Your task to perform on an android device: open app "Cash App" (install if not already installed) and enter user name: "submodules@gmail.com" and password: "heavenly" Image 0: 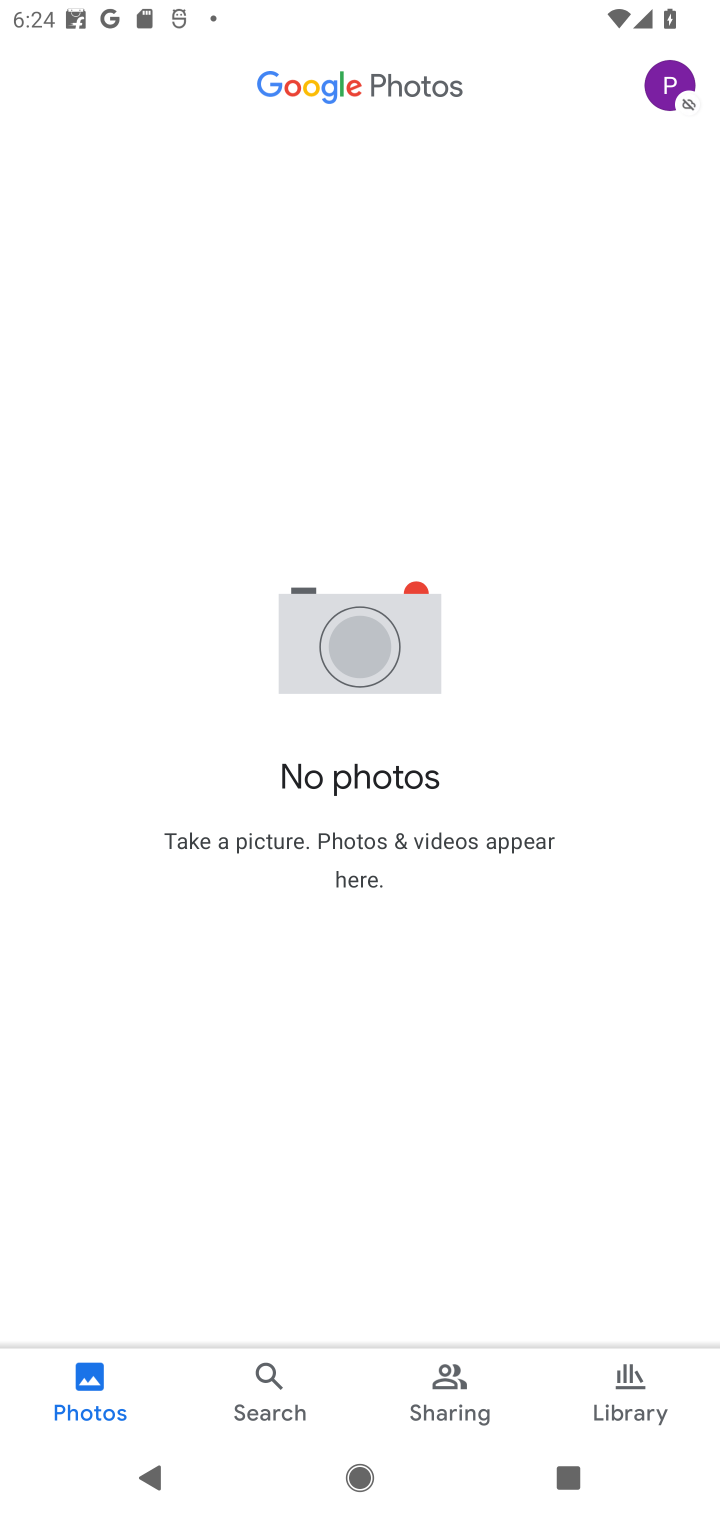
Step 0: press home button
Your task to perform on an android device: open app "Cash App" (install if not already installed) and enter user name: "submodules@gmail.com" and password: "heavenly" Image 1: 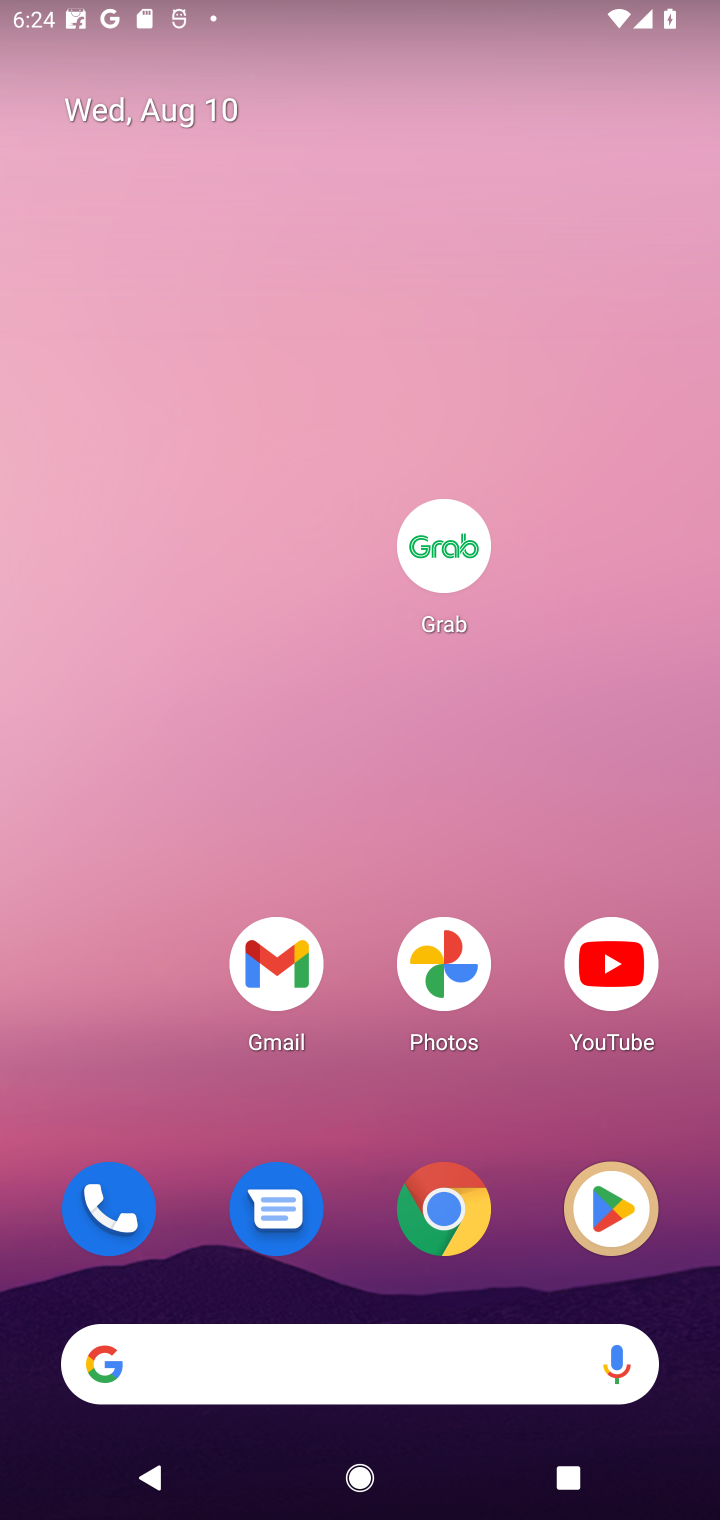
Step 1: click (569, 1246)
Your task to perform on an android device: open app "Cash App" (install if not already installed) and enter user name: "submodules@gmail.com" and password: "heavenly" Image 2: 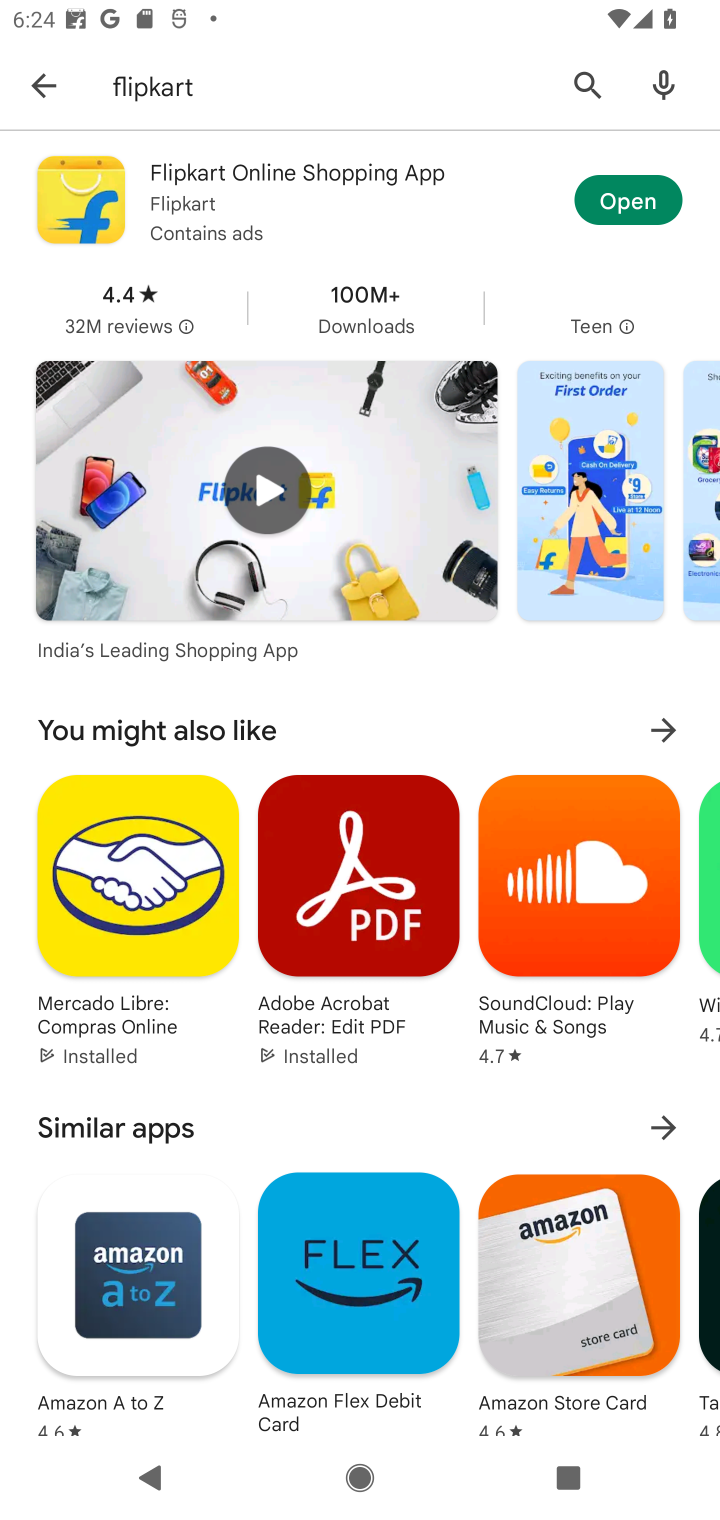
Step 2: click (575, 118)
Your task to perform on an android device: open app "Cash App" (install if not already installed) and enter user name: "submodules@gmail.com" and password: "heavenly" Image 3: 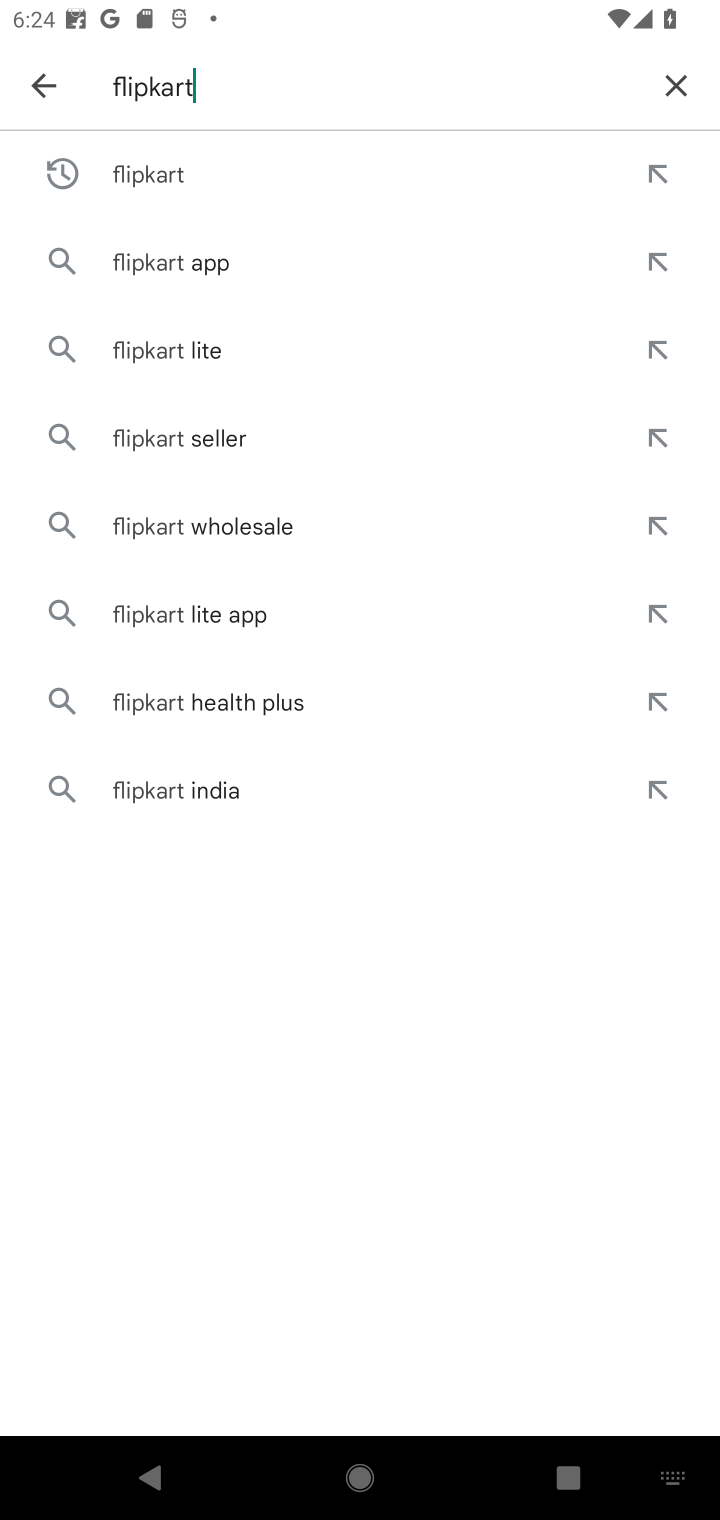
Step 3: click (652, 87)
Your task to perform on an android device: open app "Cash App" (install if not already installed) and enter user name: "submodules@gmail.com" and password: "heavenly" Image 4: 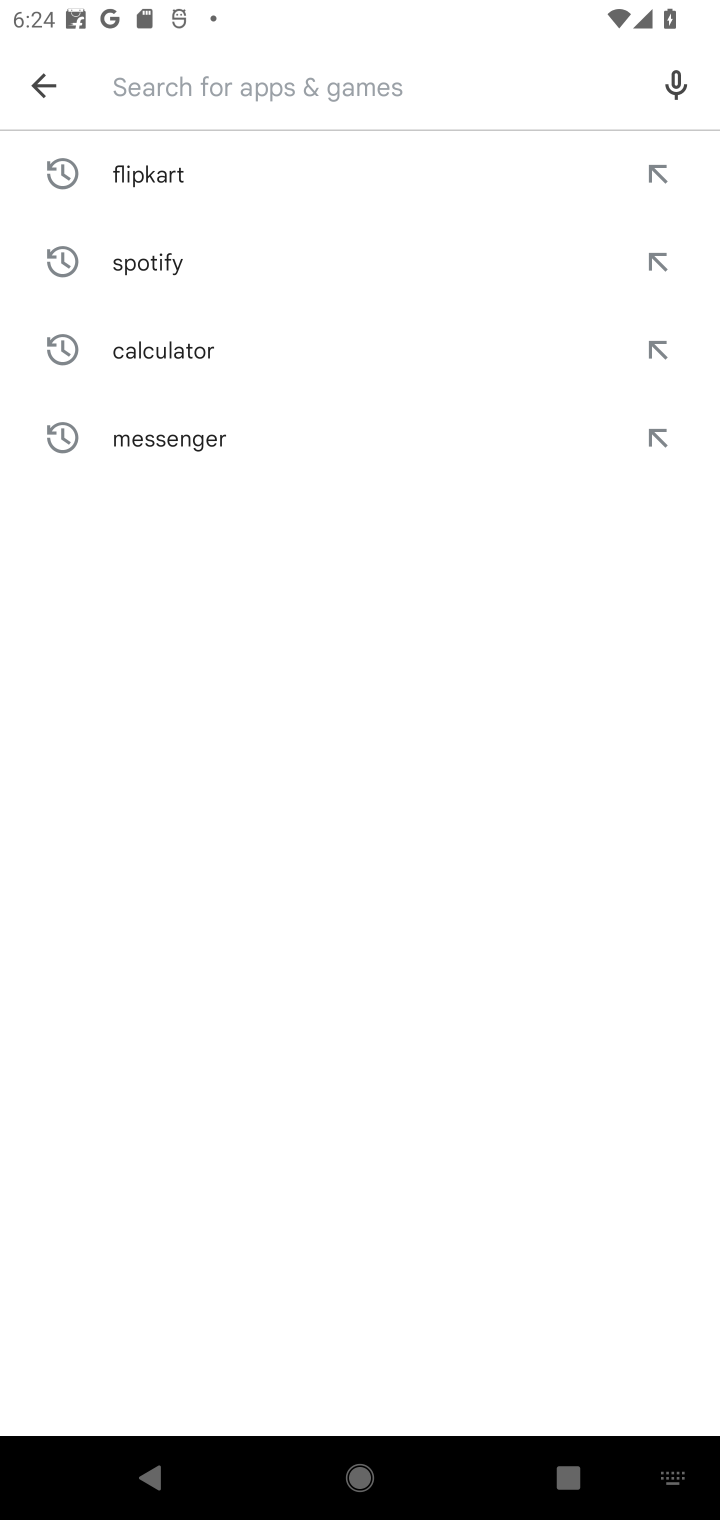
Step 4: type "cash app"
Your task to perform on an android device: open app "Cash App" (install if not already installed) and enter user name: "submodules@gmail.com" and password: "heavenly" Image 5: 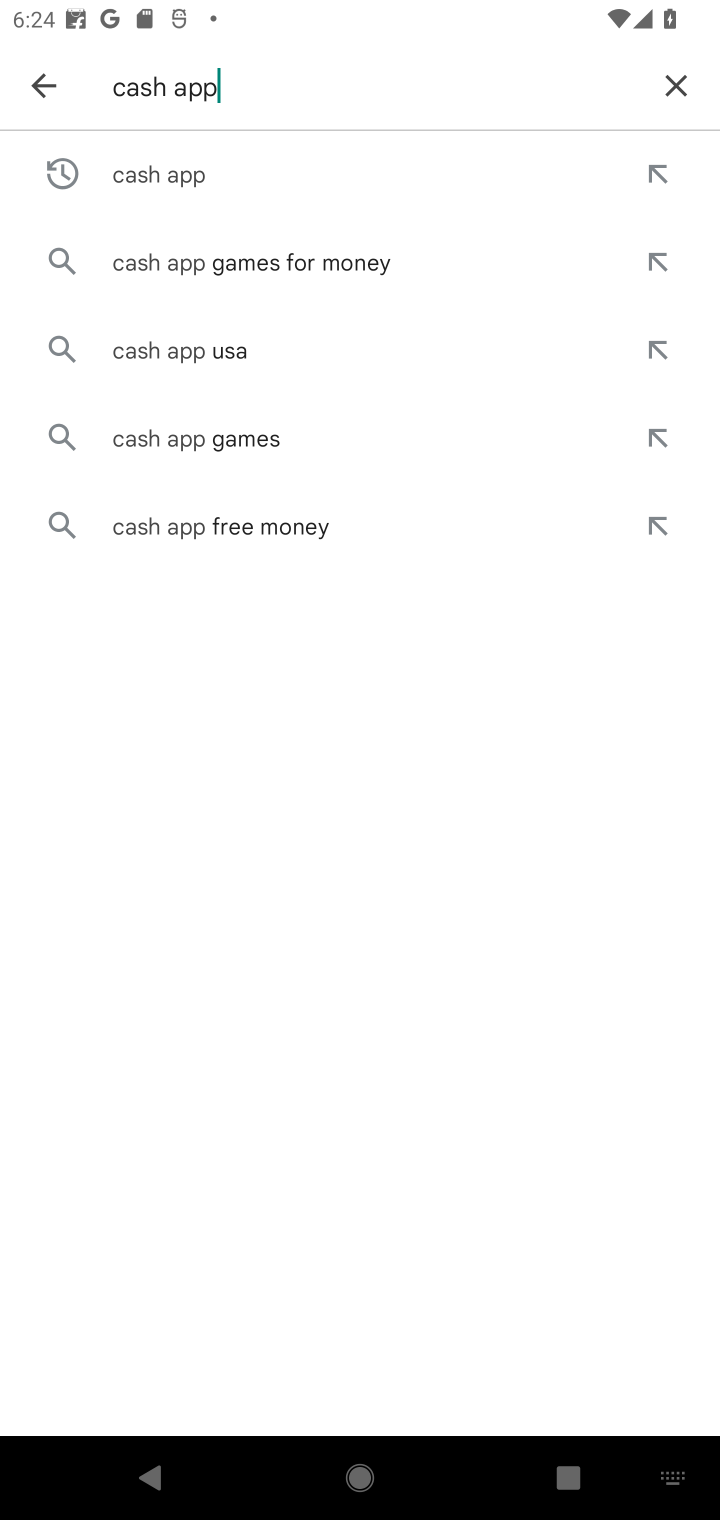
Step 5: click (207, 188)
Your task to perform on an android device: open app "Cash App" (install if not already installed) and enter user name: "submodules@gmail.com" and password: "heavenly" Image 6: 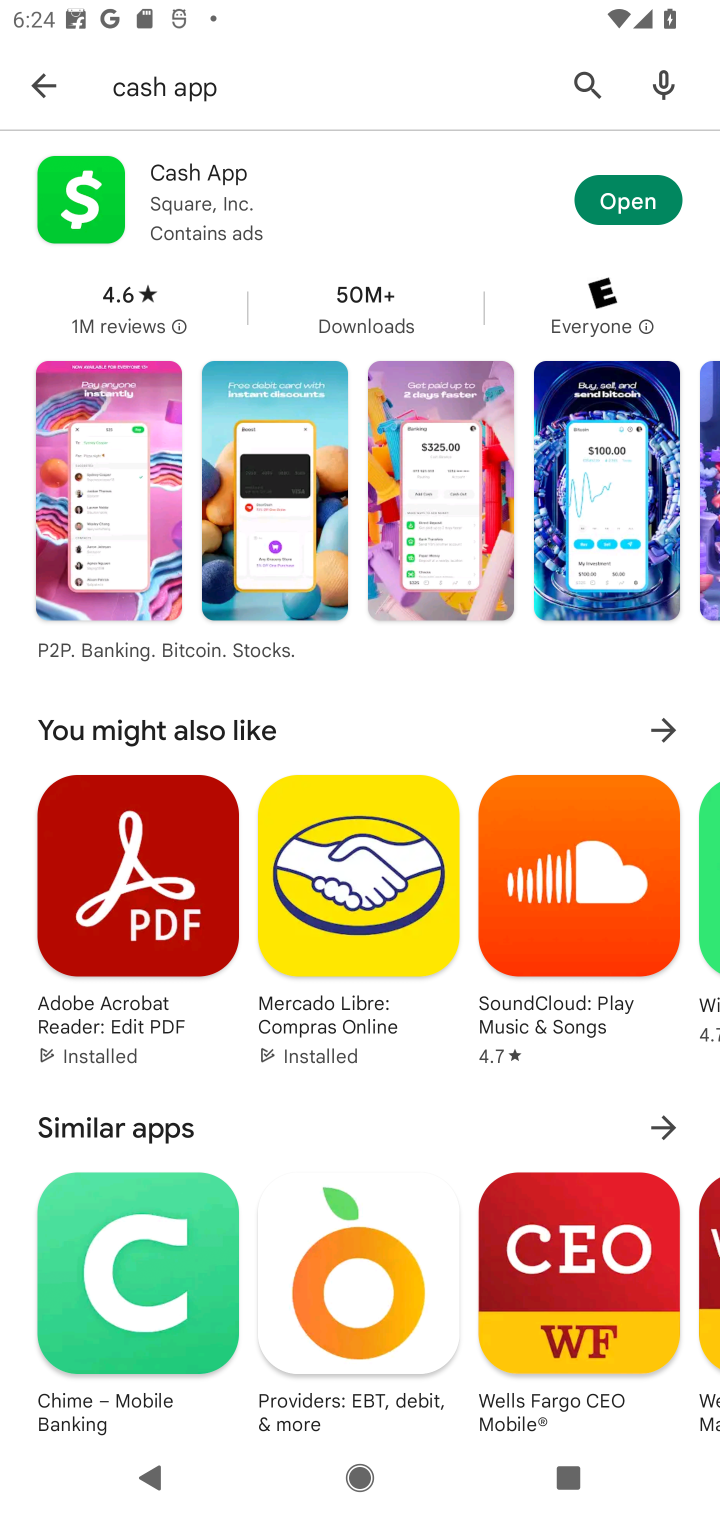
Step 6: click (626, 178)
Your task to perform on an android device: open app "Cash App" (install if not already installed) and enter user name: "submodules@gmail.com" and password: "heavenly" Image 7: 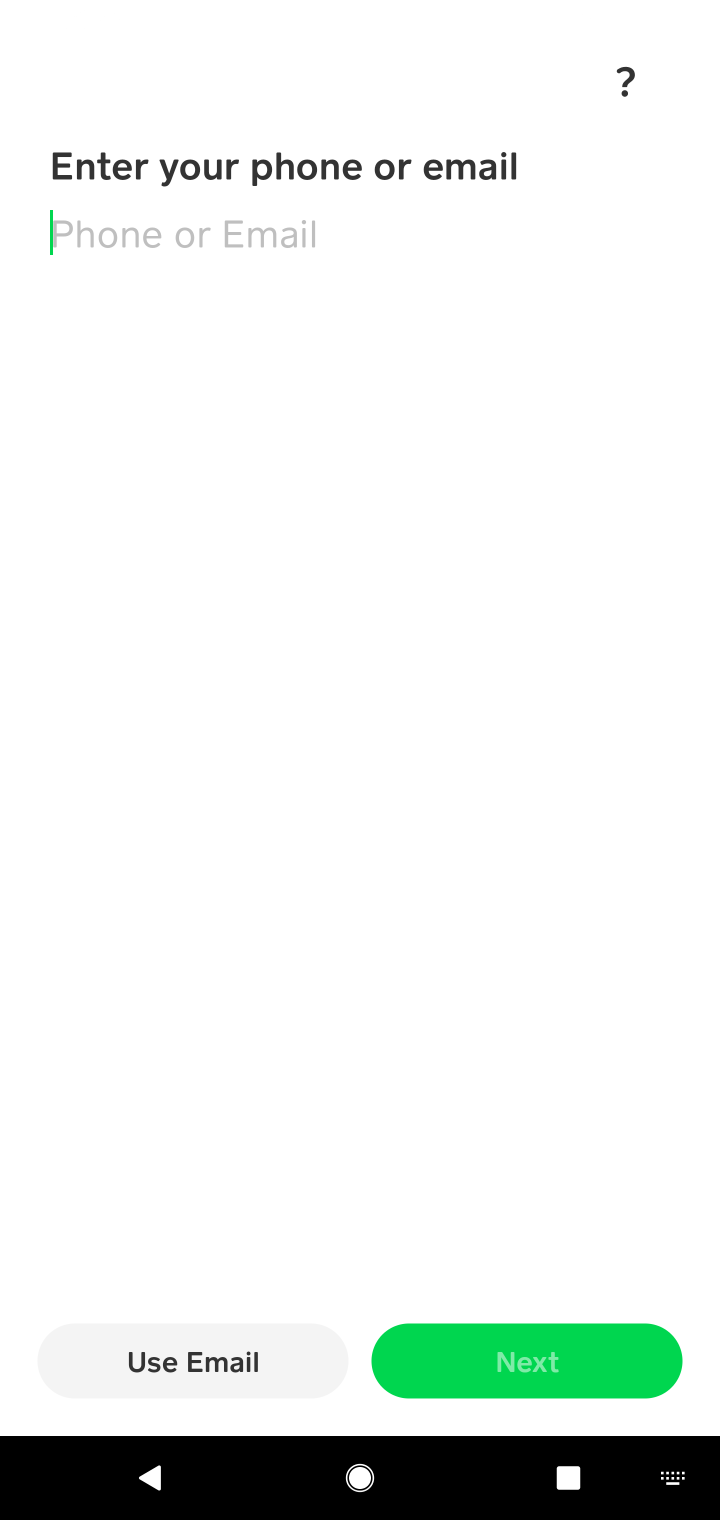
Step 7: click (195, 1389)
Your task to perform on an android device: open app "Cash App" (install if not already installed) and enter user name: "submodules@gmail.com" and password: "heavenly" Image 8: 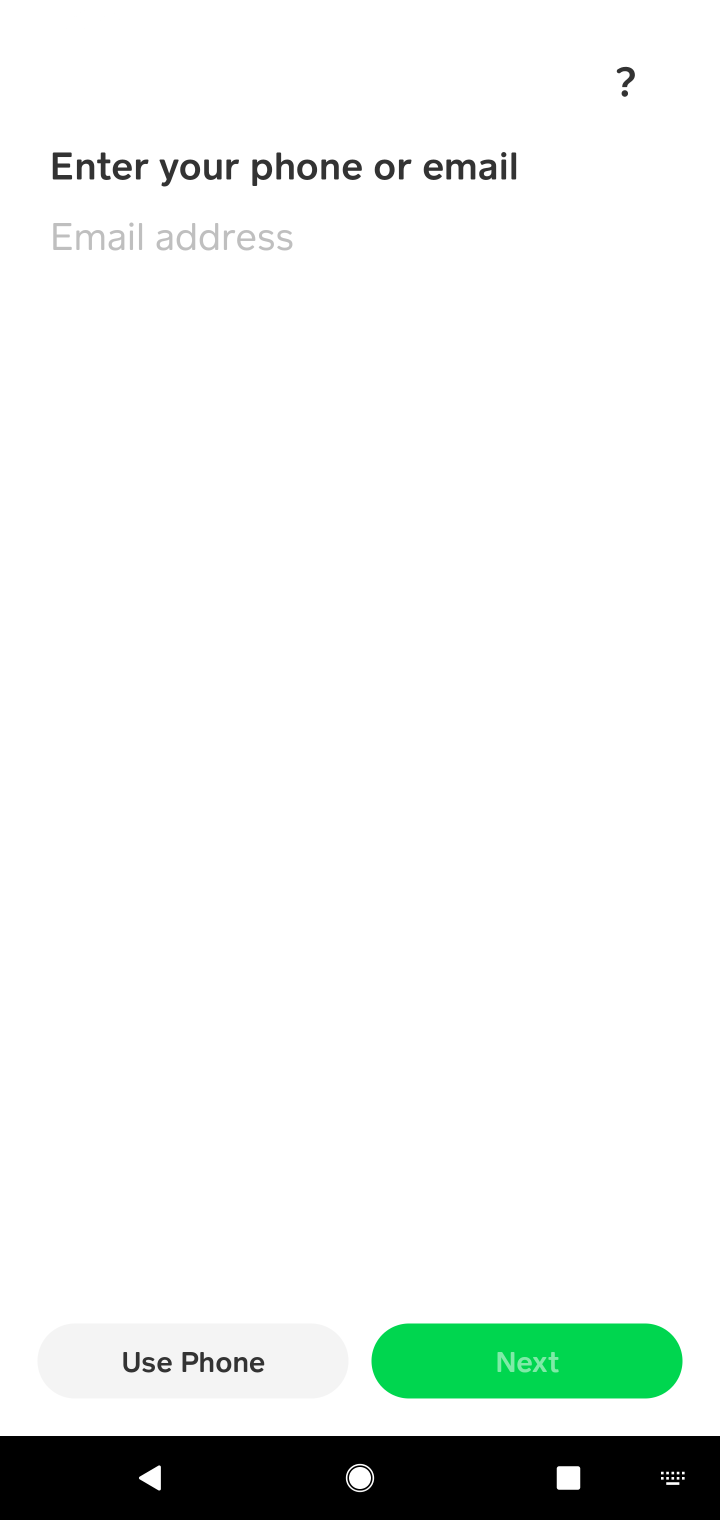
Step 8: click (237, 233)
Your task to perform on an android device: open app "Cash App" (install if not already installed) and enter user name: "submodules@gmail.com" and password: "heavenly" Image 9: 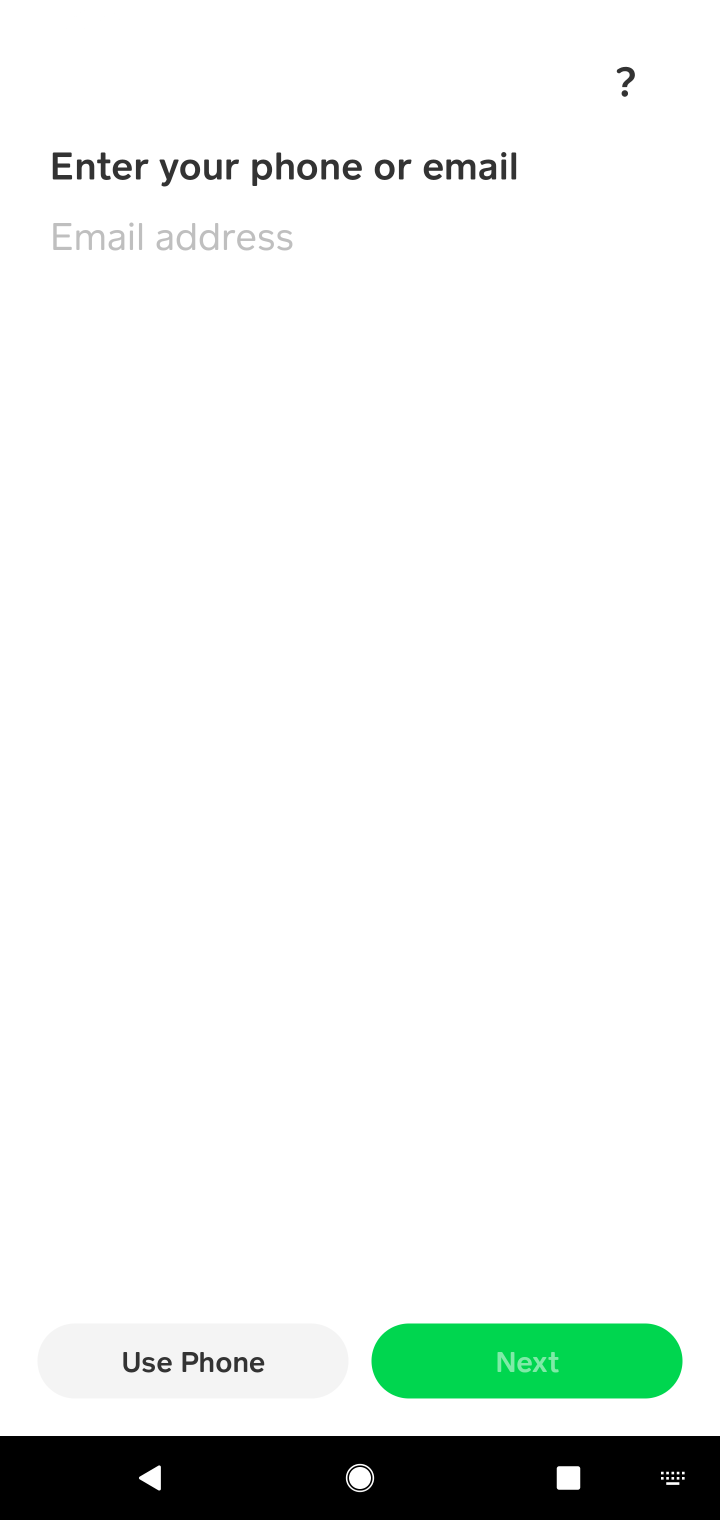
Step 9: type "submodules@gmail.com"
Your task to perform on an android device: open app "Cash App" (install if not already installed) and enter user name: "submodules@gmail.com" and password: "heavenly" Image 10: 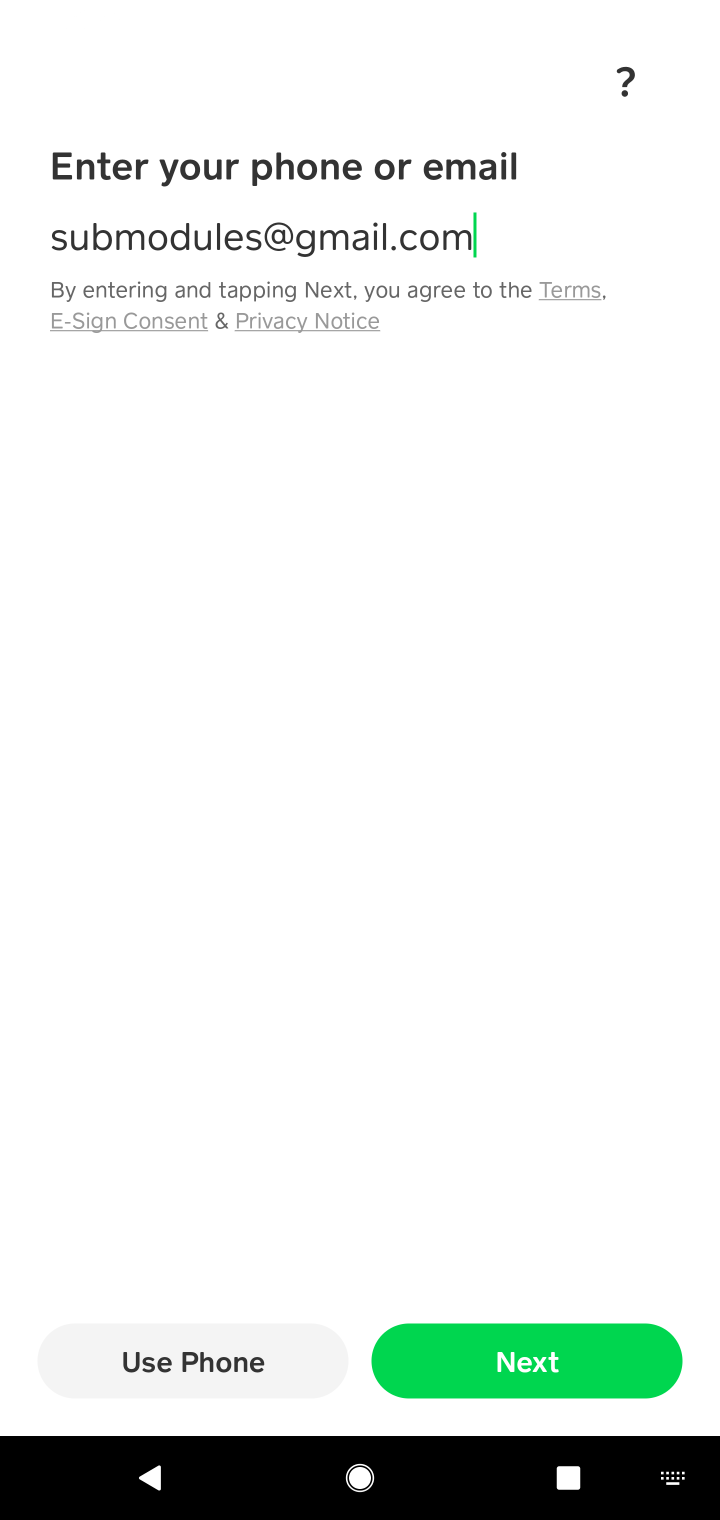
Step 10: click (500, 1365)
Your task to perform on an android device: open app "Cash App" (install if not already installed) and enter user name: "submodules@gmail.com" and password: "heavenly" Image 11: 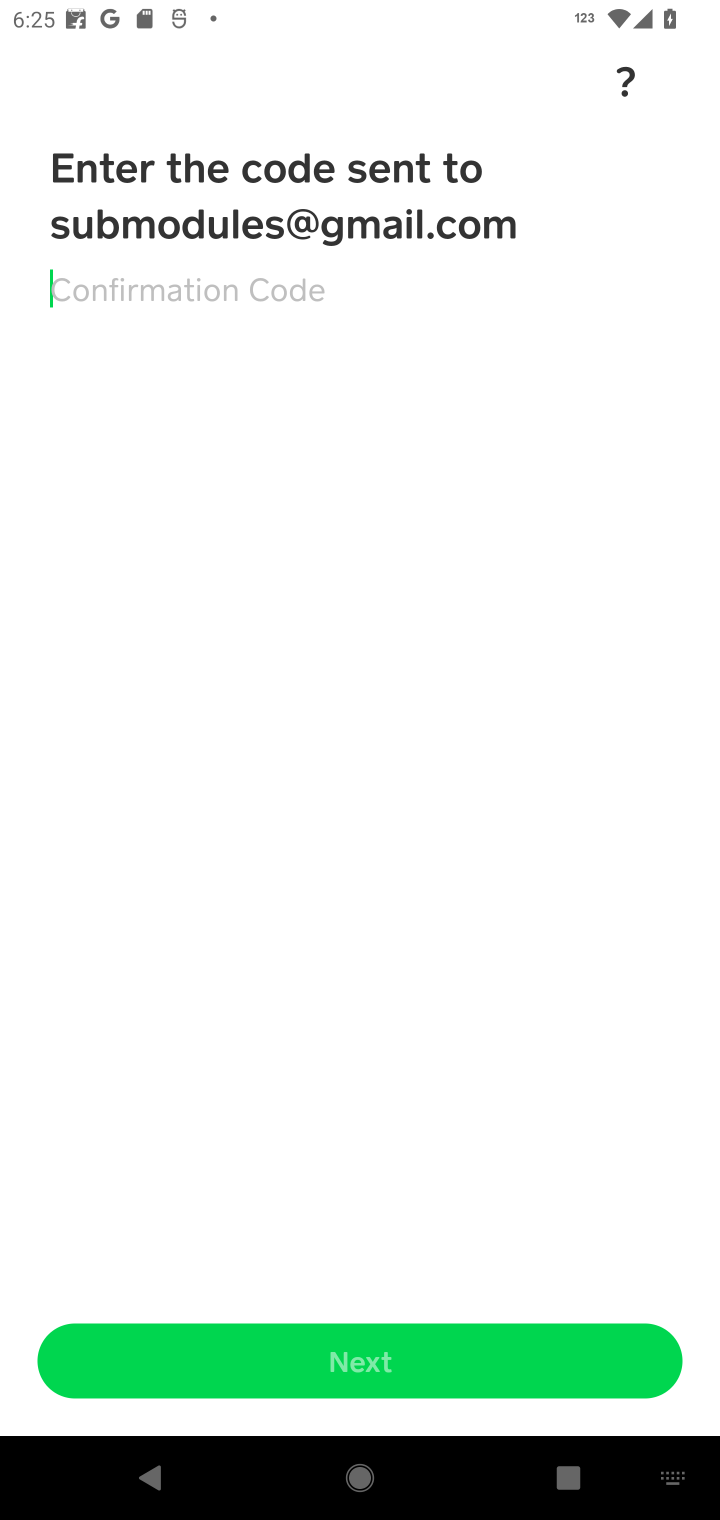
Step 11: click (292, 306)
Your task to perform on an android device: open app "Cash App" (install if not already installed) and enter user name: "submodules@gmail.com" and password: "heavenly" Image 12: 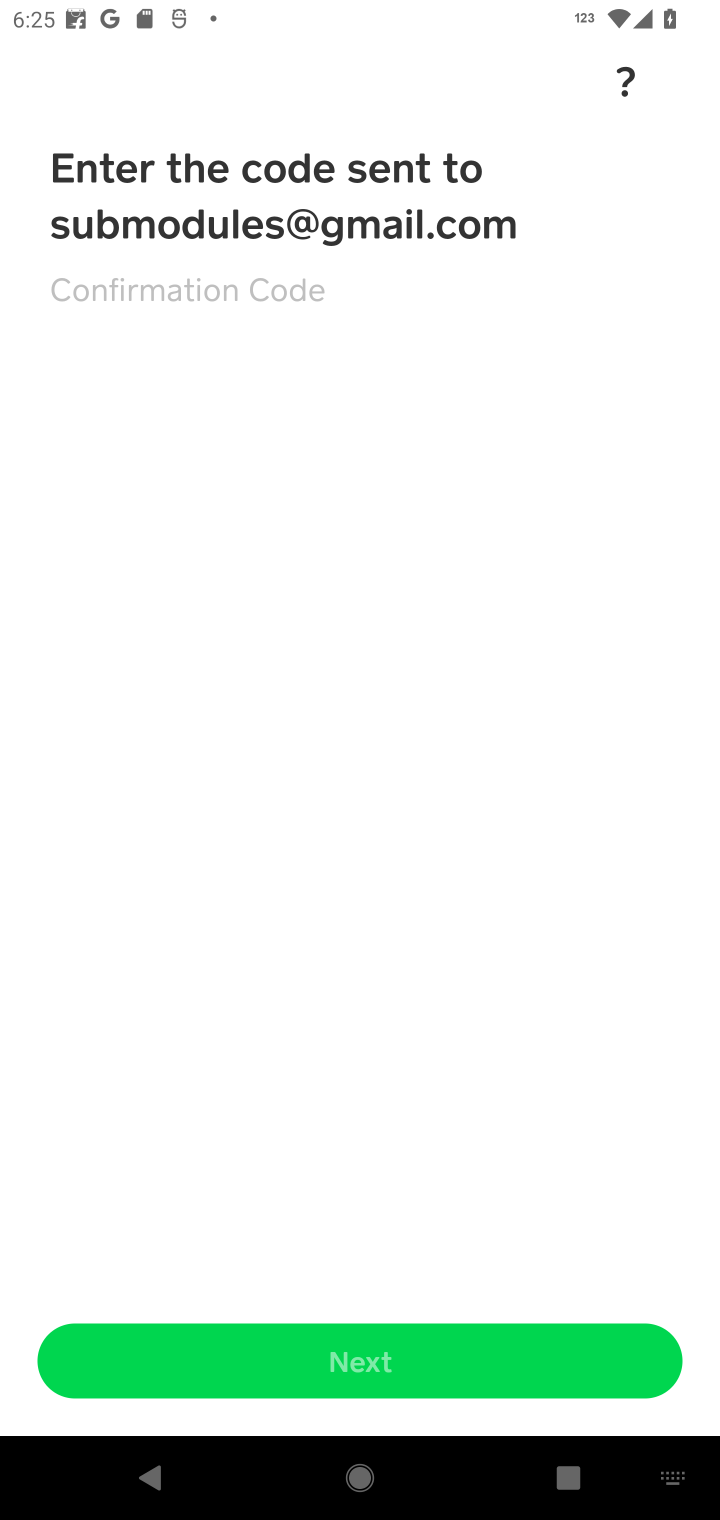
Step 12: type "heavenly"
Your task to perform on an android device: open app "Cash App" (install if not already installed) and enter user name: "submodules@gmail.com" and password: "heavenly" Image 13: 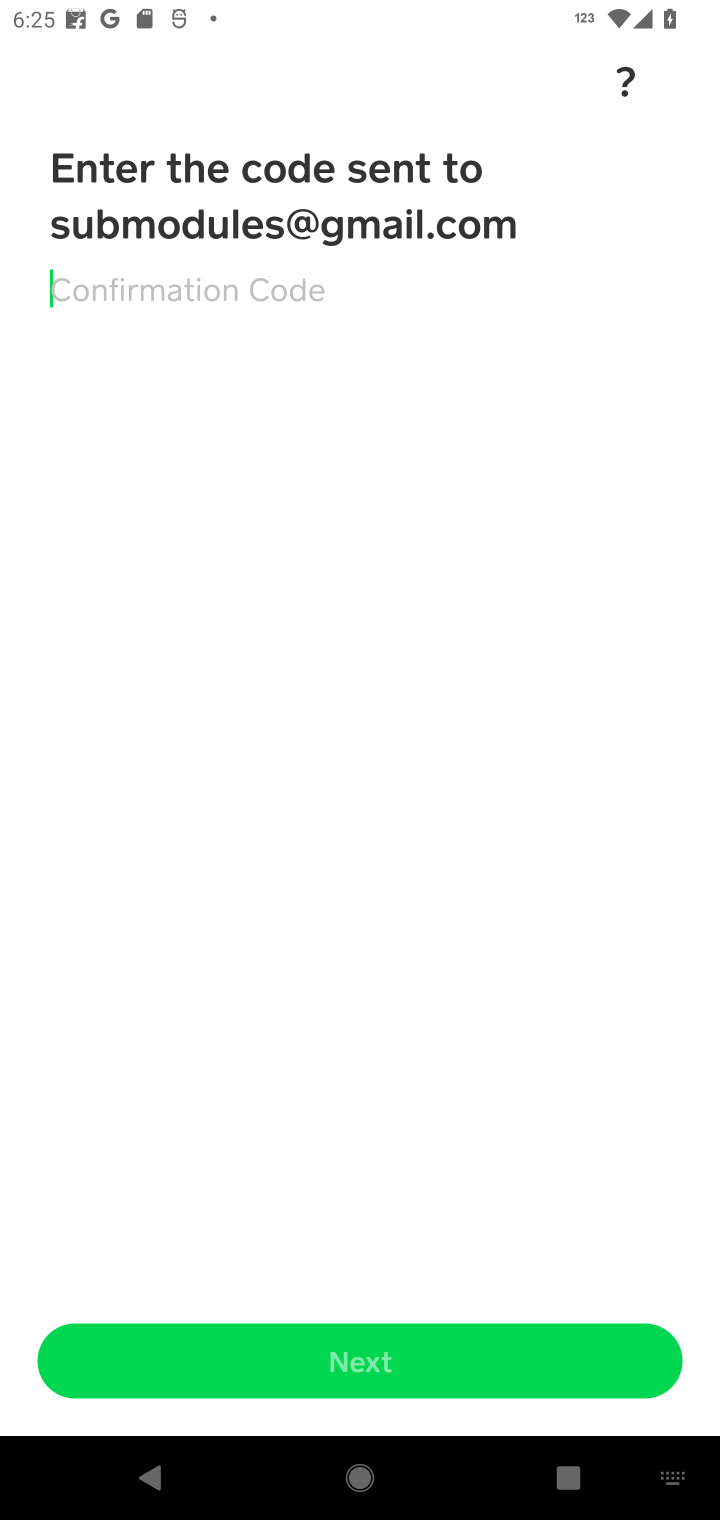
Step 13: click (602, 281)
Your task to perform on an android device: open app "Cash App" (install if not already installed) and enter user name: "submodules@gmail.com" and password: "heavenly" Image 14: 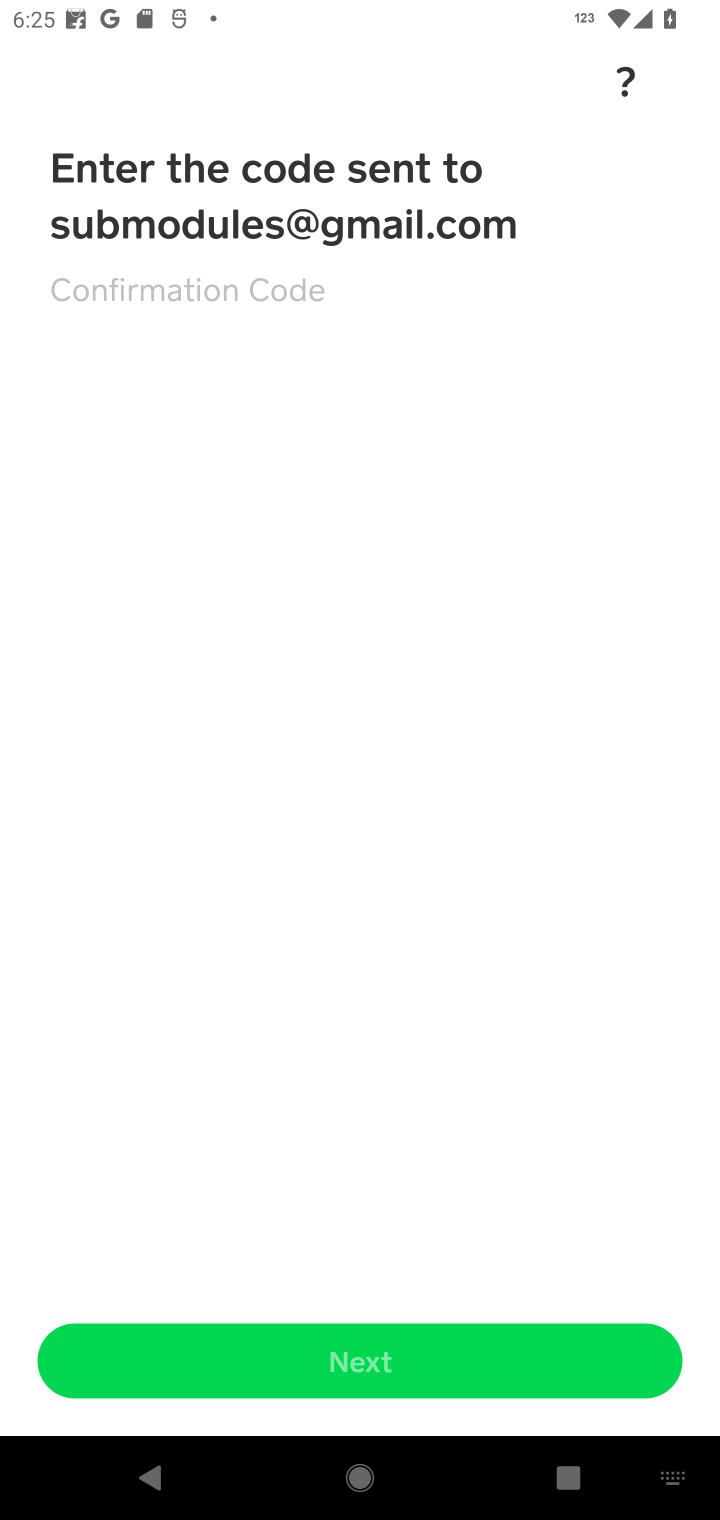
Step 14: click (325, 288)
Your task to perform on an android device: open app "Cash App" (install if not already installed) and enter user name: "submodules@gmail.com" and password: "heavenly" Image 15: 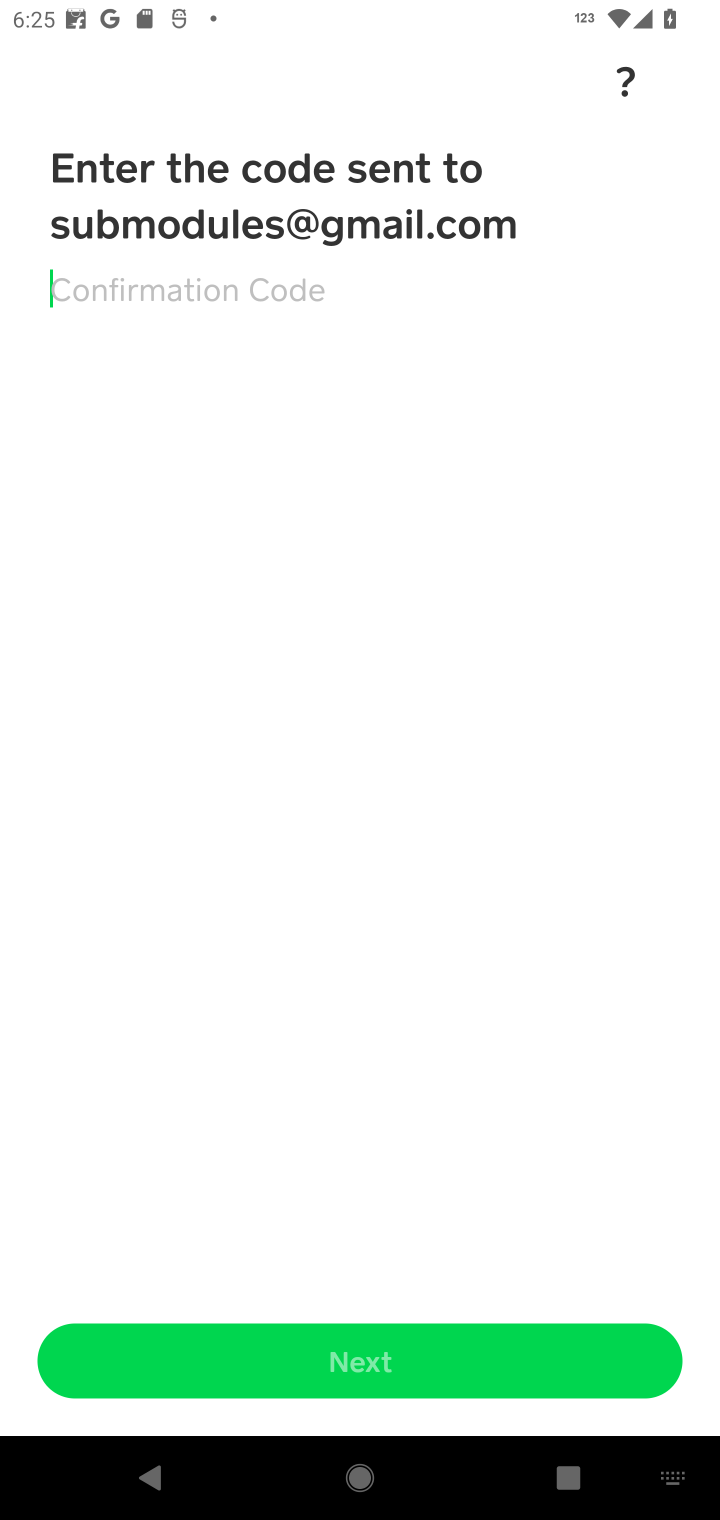
Step 15: type "heavenly"
Your task to perform on an android device: open app "Cash App" (install if not already installed) and enter user name: "submodules@gmail.com" and password: "heavenly" Image 16: 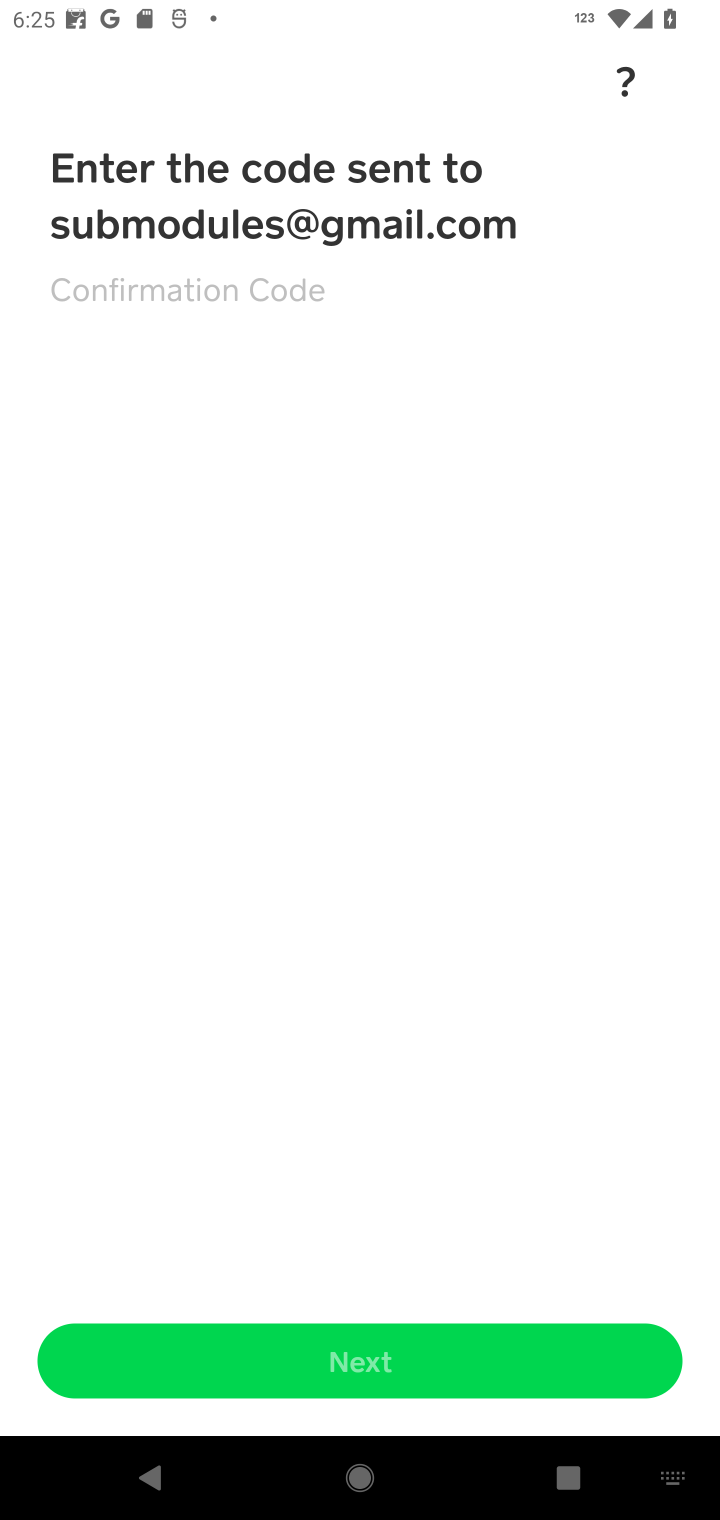
Step 16: task complete